Your task to perform on an android device: toggle notification dots Image 0: 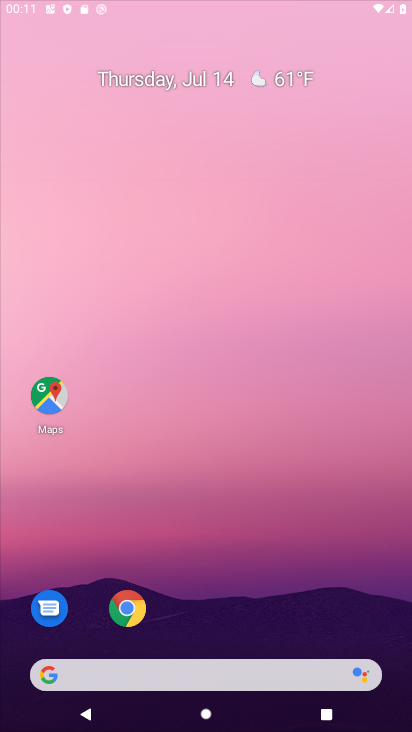
Step 0: click (254, 89)
Your task to perform on an android device: toggle notification dots Image 1: 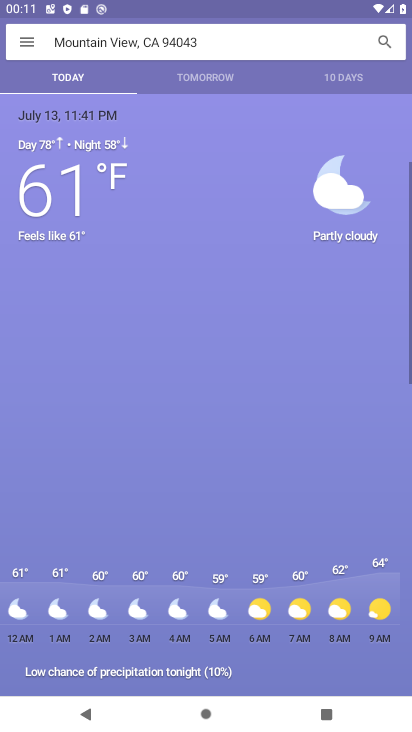
Step 1: drag from (180, 634) to (233, 363)
Your task to perform on an android device: toggle notification dots Image 2: 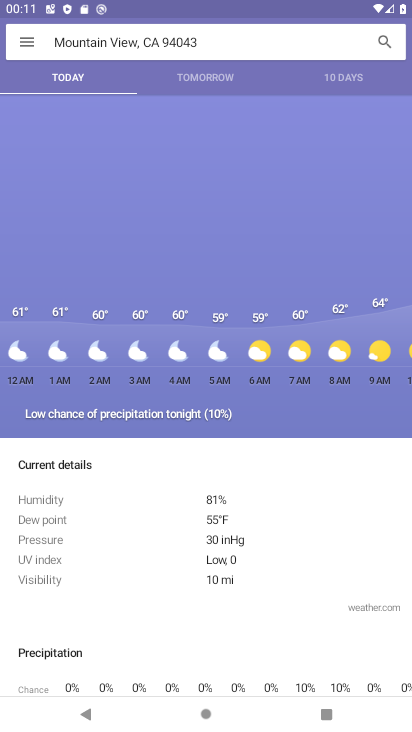
Step 2: press home button
Your task to perform on an android device: toggle notification dots Image 3: 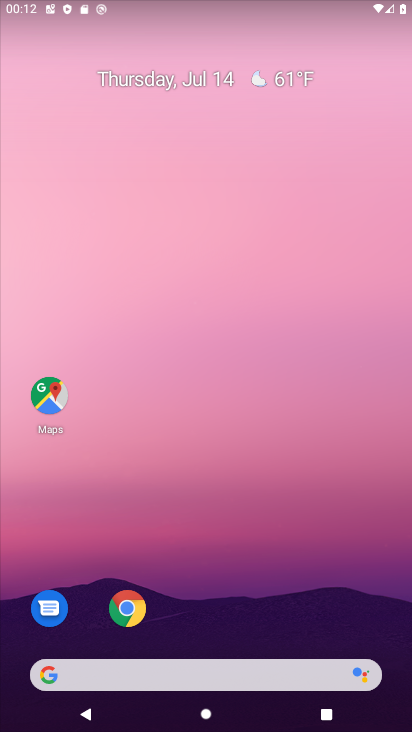
Step 3: drag from (179, 619) to (160, 14)
Your task to perform on an android device: toggle notification dots Image 4: 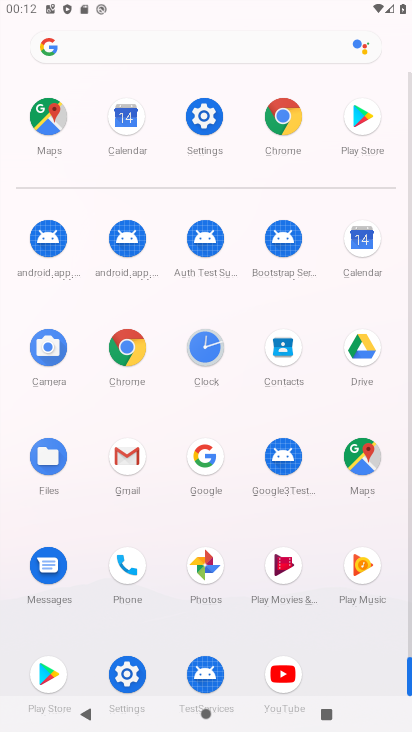
Step 4: drag from (183, 592) to (237, 93)
Your task to perform on an android device: toggle notification dots Image 5: 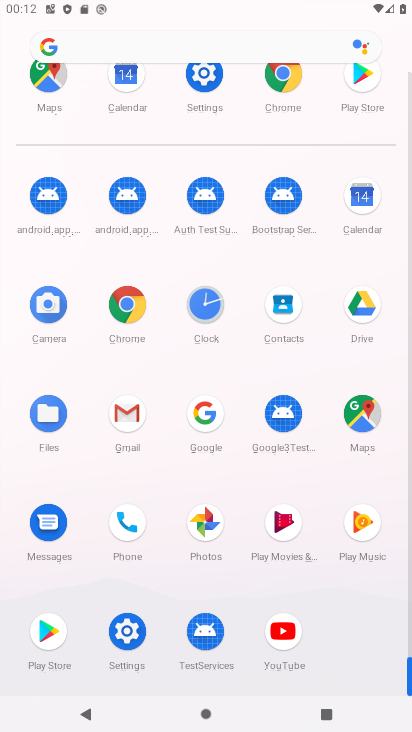
Step 5: click (130, 630)
Your task to perform on an android device: toggle notification dots Image 6: 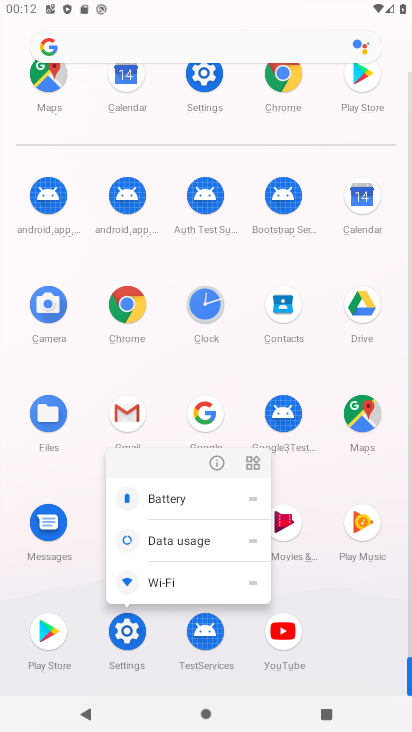
Step 6: click (207, 452)
Your task to perform on an android device: toggle notification dots Image 7: 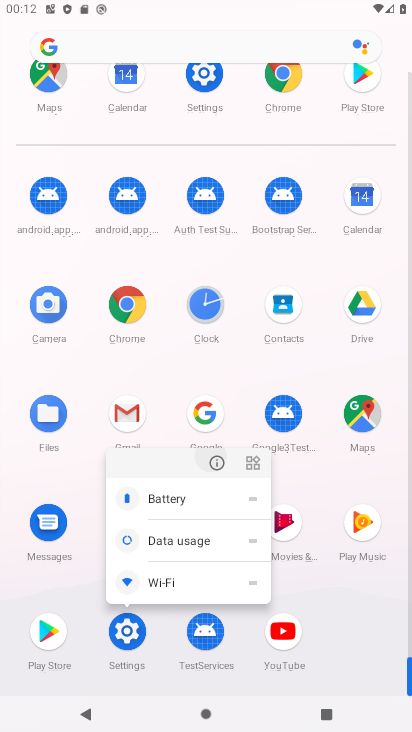
Step 7: click (209, 454)
Your task to perform on an android device: toggle notification dots Image 8: 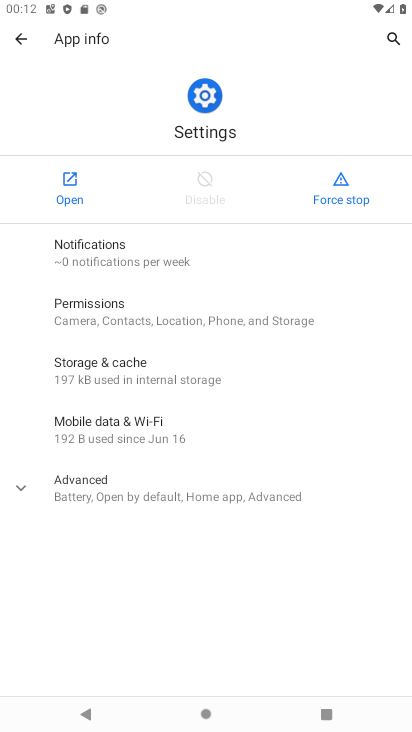
Step 8: click (64, 187)
Your task to perform on an android device: toggle notification dots Image 9: 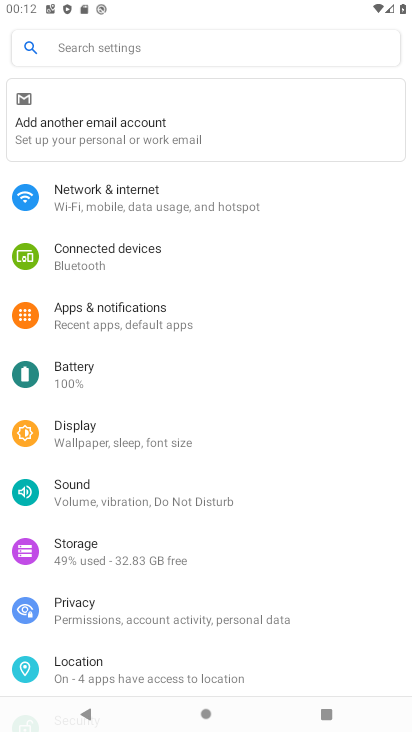
Step 9: click (151, 316)
Your task to perform on an android device: toggle notification dots Image 10: 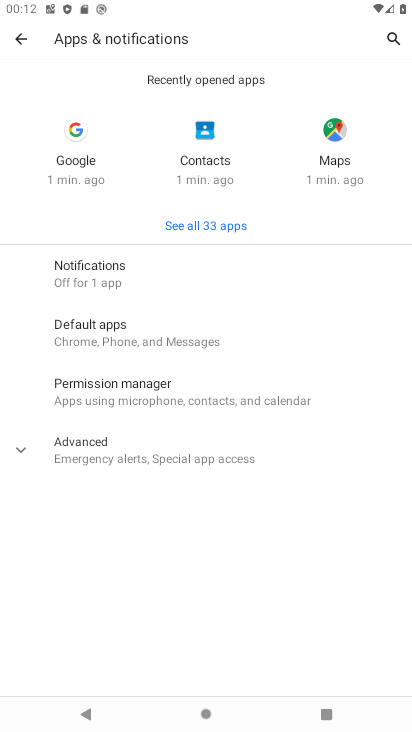
Step 10: click (103, 268)
Your task to perform on an android device: toggle notification dots Image 11: 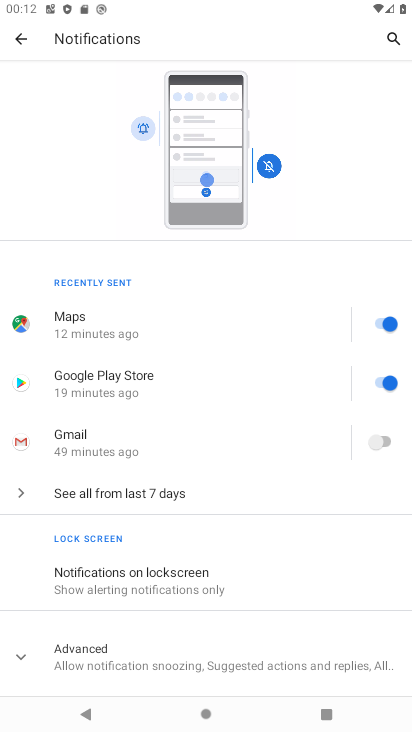
Step 11: click (84, 661)
Your task to perform on an android device: toggle notification dots Image 12: 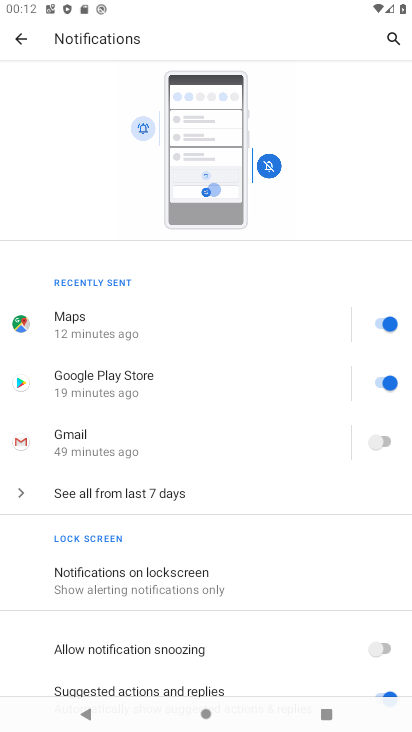
Step 12: drag from (210, 650) to (302, 406)
Your task to perform on an android device: toggle notification dots Image 13: 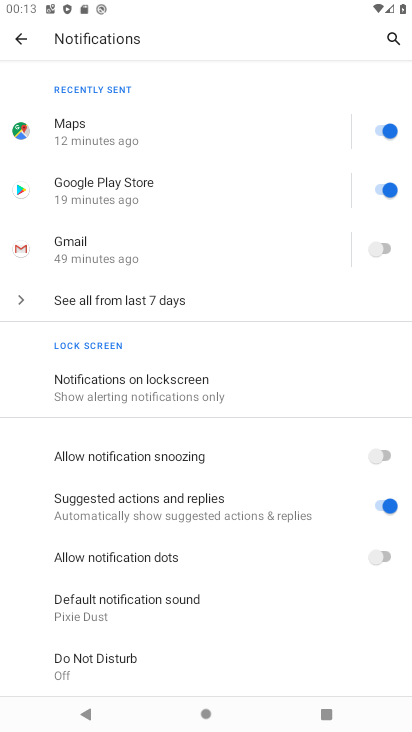
Step 13: click (211, 558)
Your task to perform on an android device: toggle notification dots Image 14: 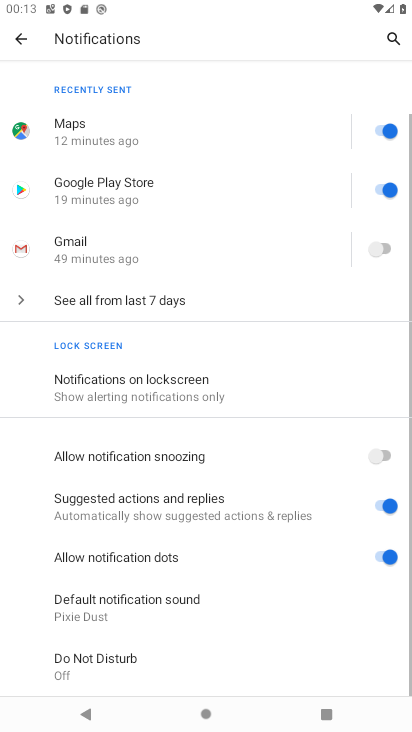
Step 14: task complete